Your task to perform on an android device: Open Yahoo.com Image 0: 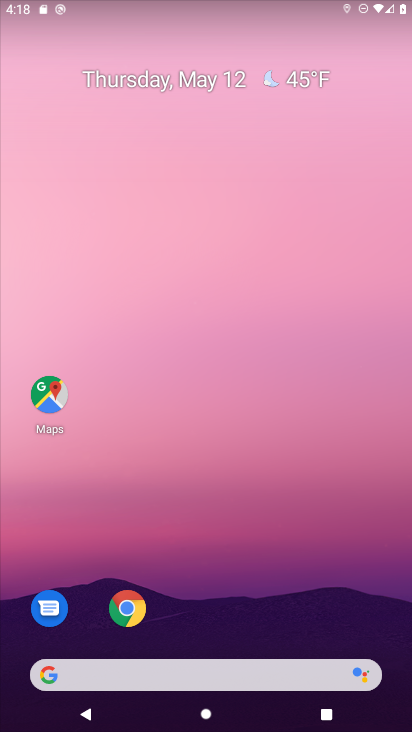
Step 0: click (123, 612)
Your task to perform on an android device: Open Yahoo.com Image 1: 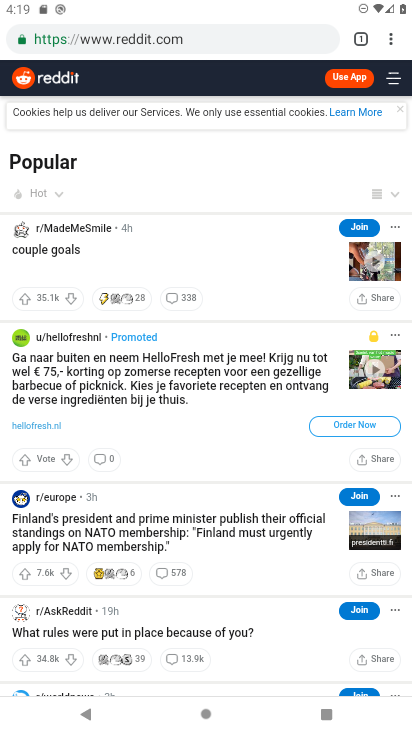
Step 1: click (145, 40)
Your task to perform on an android device: Open Yahoo.com Image 2: 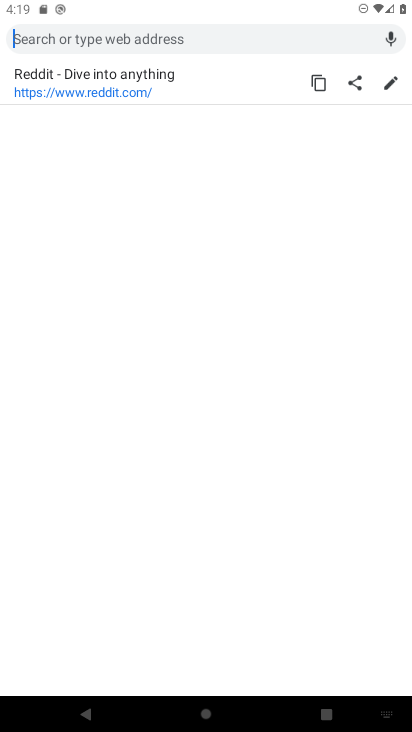
Step 2: type "yahoo.com"
Your task to perform on an android device: Open Yahoo.com Image 3: 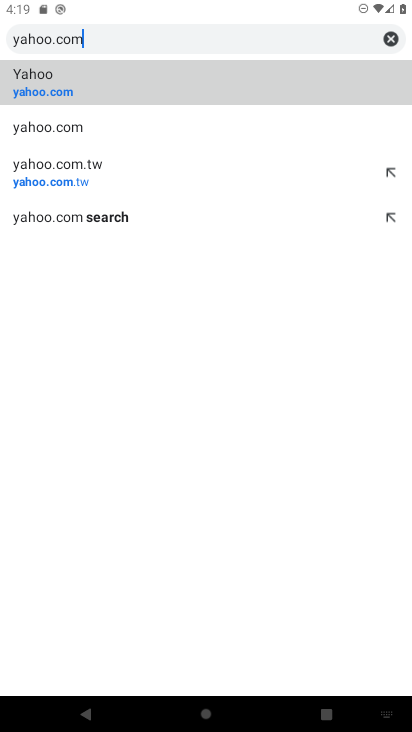
Step 3: click (243, 88)
Your task to perform on an android device: Open Yahoo.com Image 4: 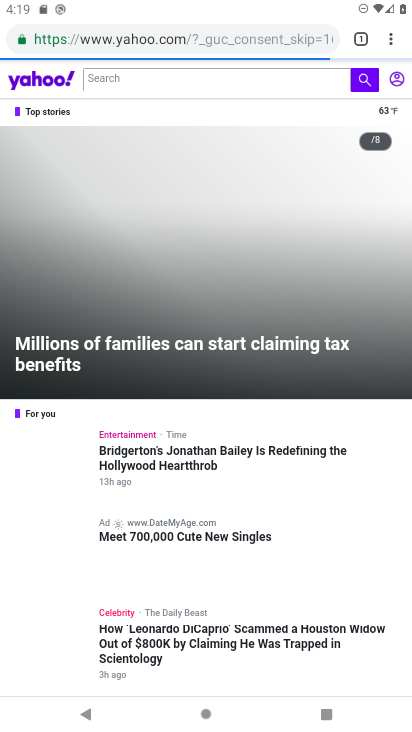
Step 4: task complete